Your task to perform on an android device: Open sound settings Image 0: 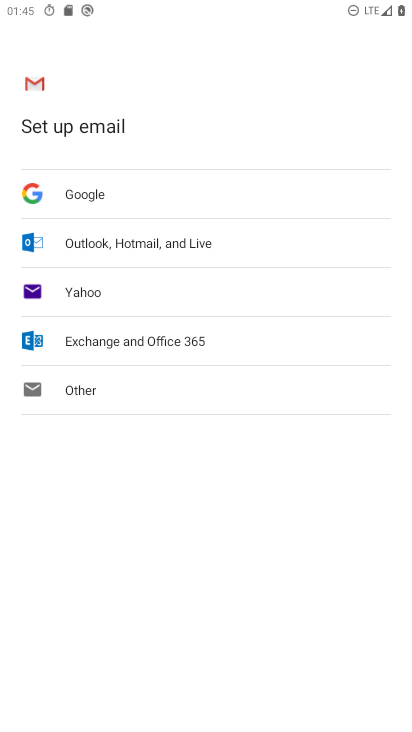
Step 0: press home button
Your task to perform on an android device: Open sound settings Image 1: 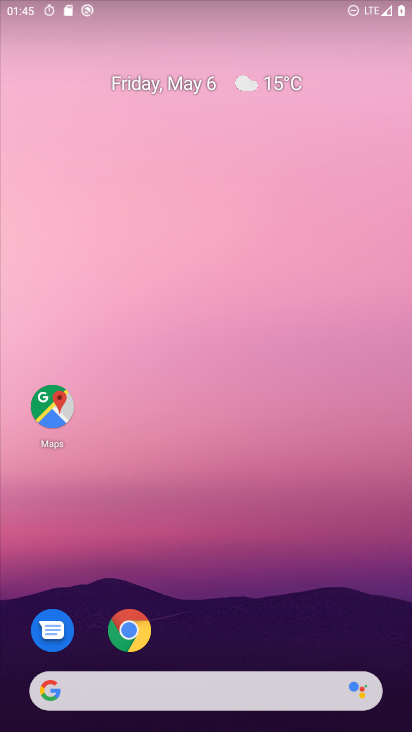
Step 1: drag from (370, 588) to (314, 92)
Your task to perform on an android device: Open sound settings Image 2: 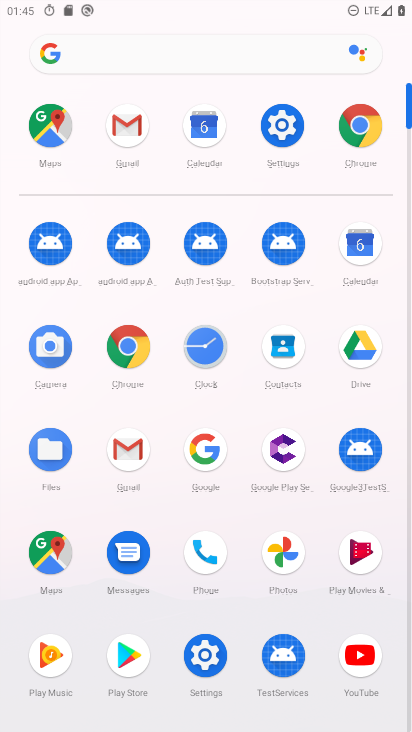
Step 2: click (294, 112)
Your task to perform on an android device: Open sound settings Image 3: 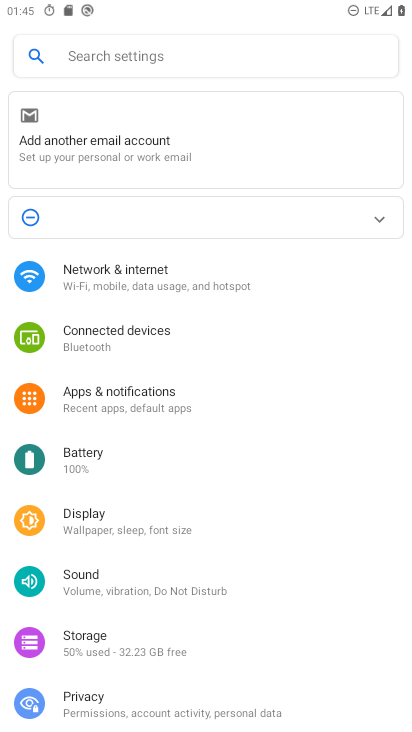
Step 3: drag from (205, 509) to (258, 219)
Your task to perform on an android device: Open sound settings Image 4: 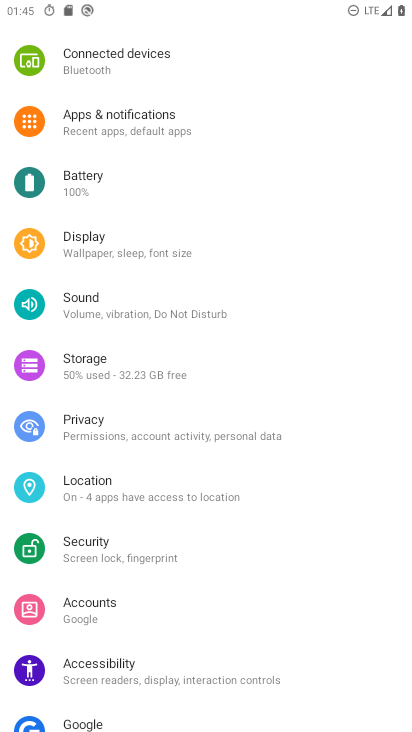
Step 4: click (140, 318)
Your task to perform on an android device: Open sound settings Image 5: 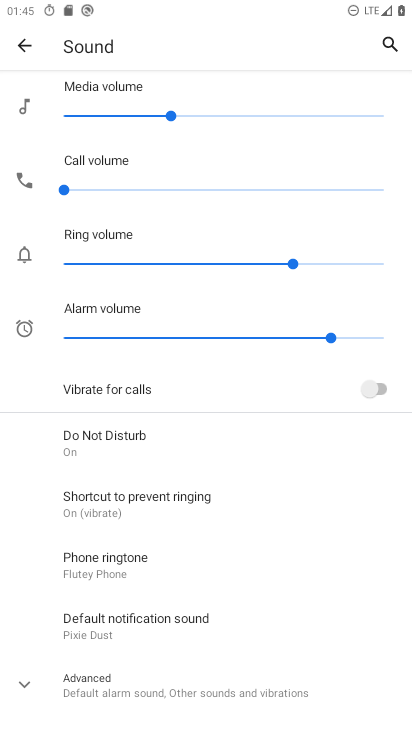
Step 5: task complete